Your task to perform on an android device: open app "Skype" (install if not already installed) and go to login screen Image 0: 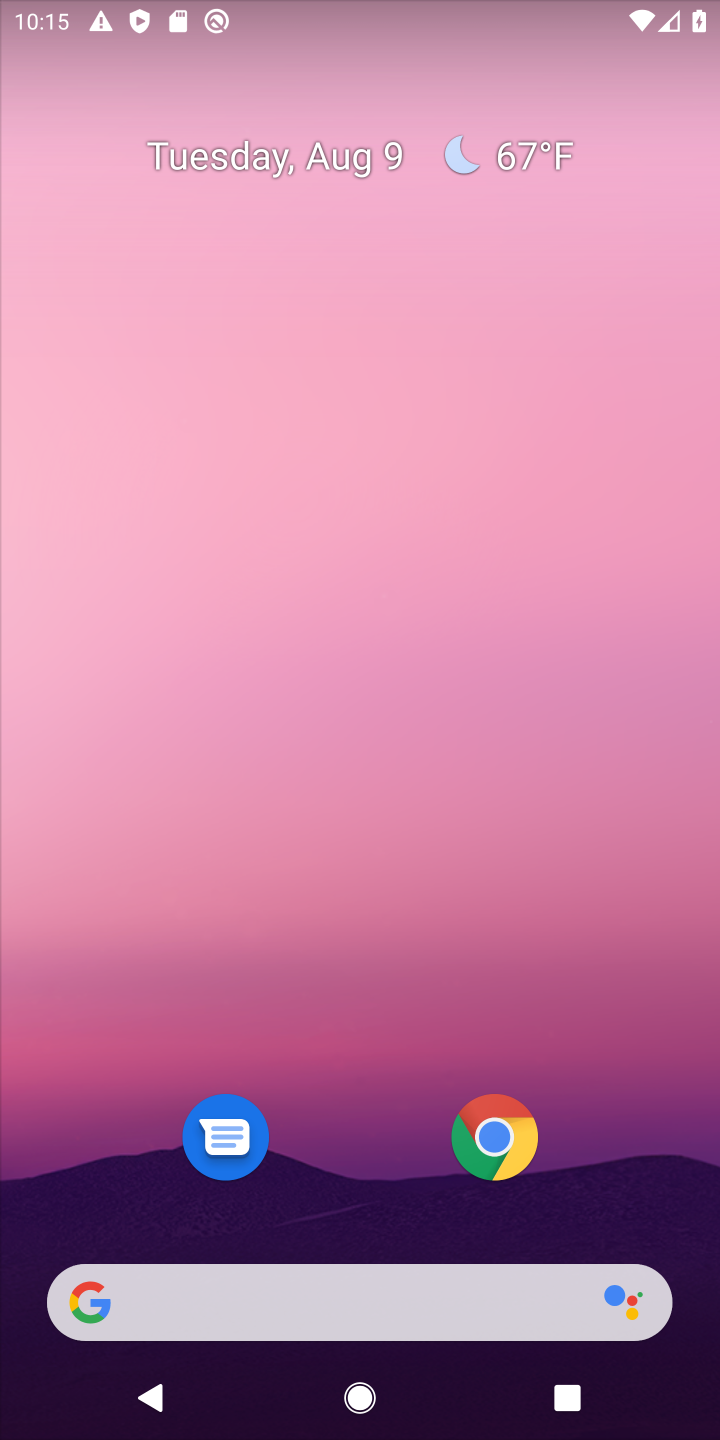
Step 0: drag from (495, 731) to (303, 37)
Your task to perform on an android device: open app "Skype" (install if not already installed) and go to login screen Image 1: 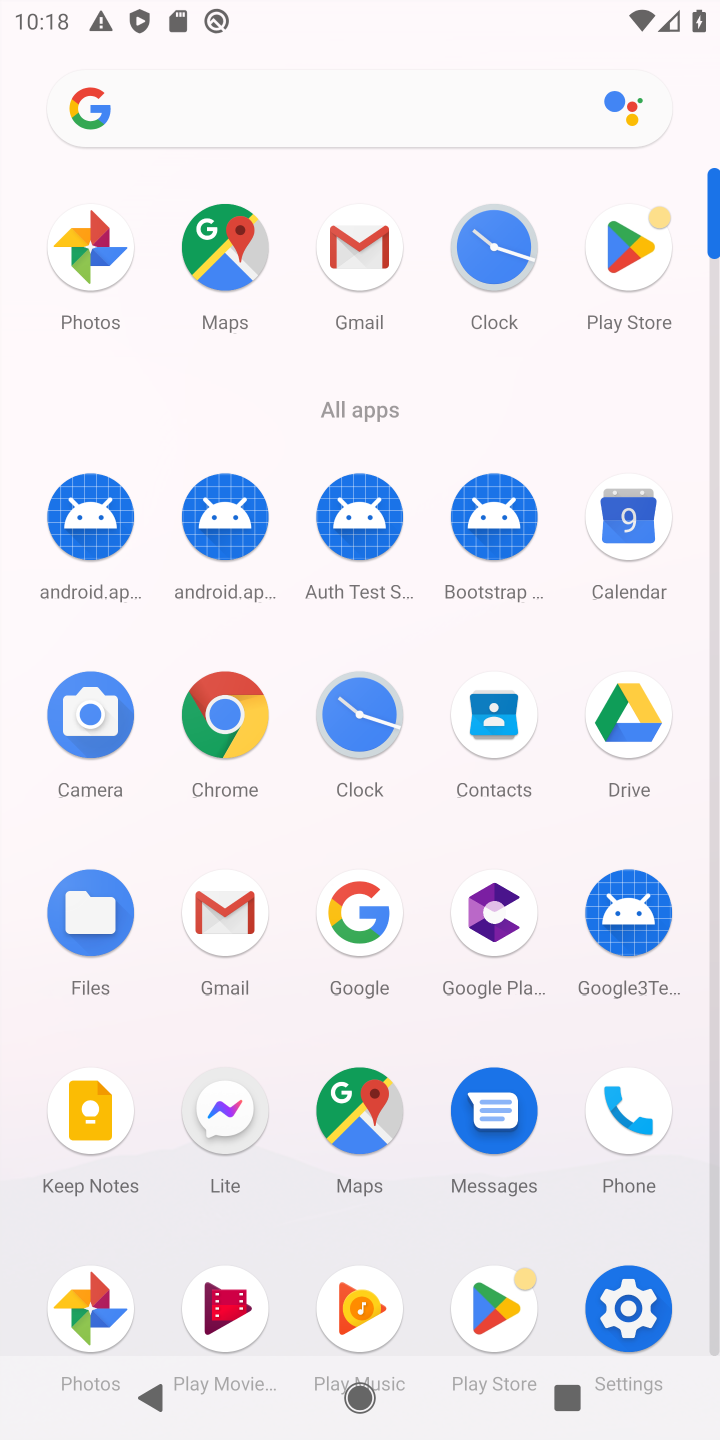
Step 1: click (614, 260)
Your task to perform on an android device: open app "Skype" (install if not already installed) and go to login screen Image 2: 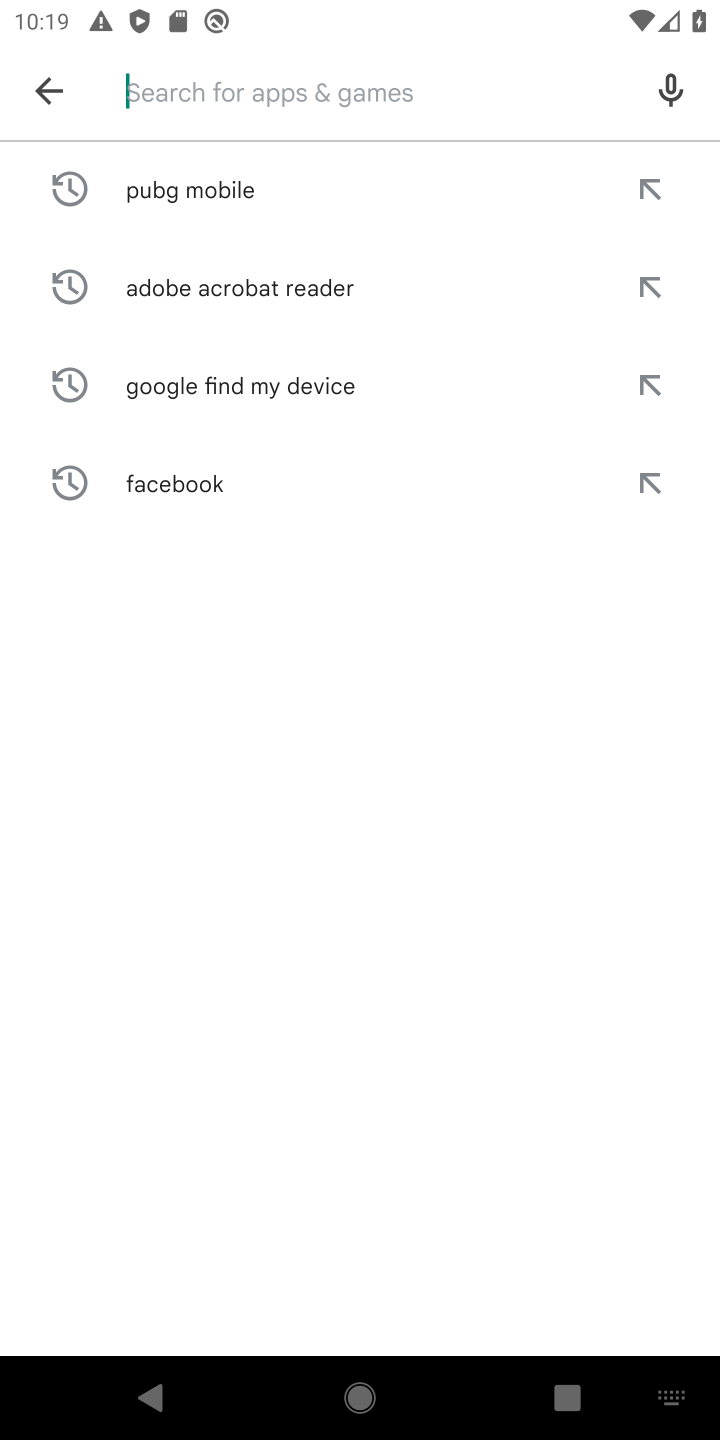
Step 2: type "Skype"
Your task to perform on an android device: open app "Skype" (install if not already installed) and go to login screen Image 3: 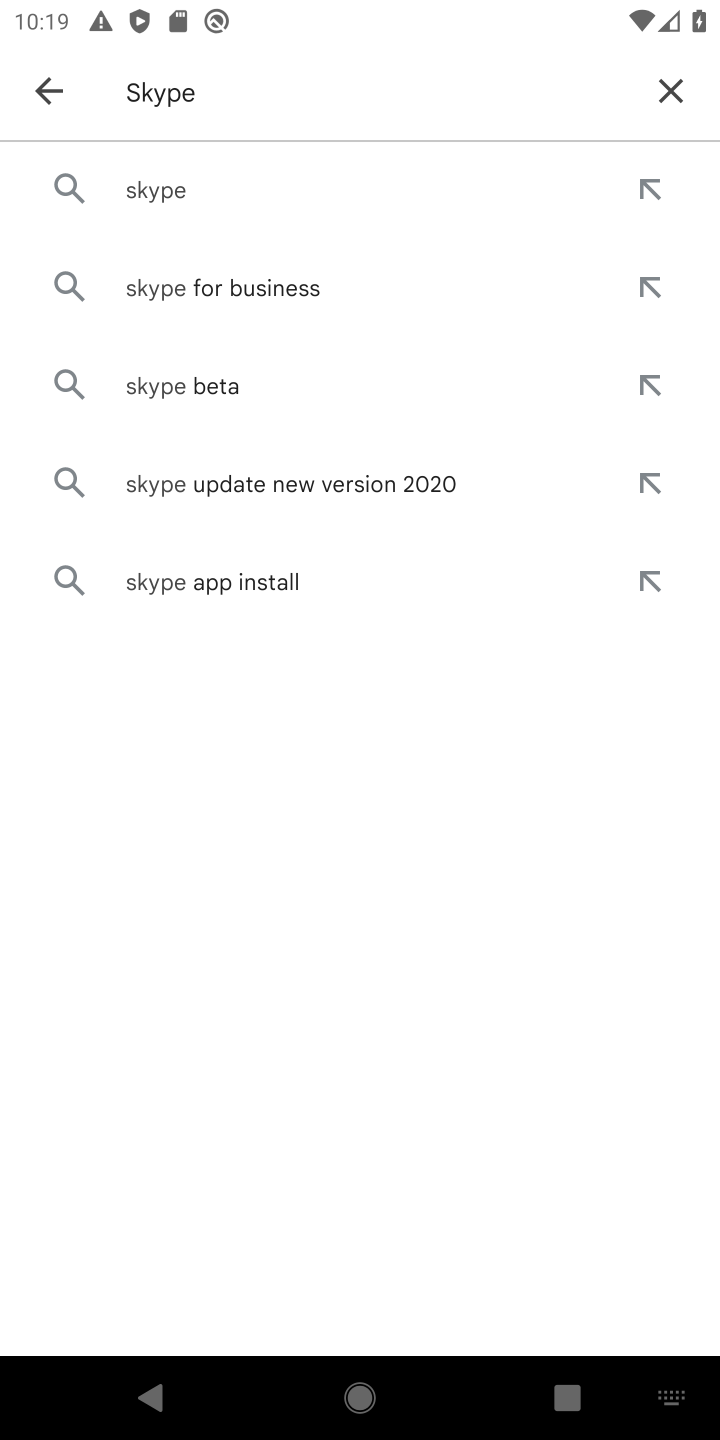
Step 3: click (174, 192)
Your task to perform on an android device: open app "Skype" (install if not already installed) and go to login screen Image 4: 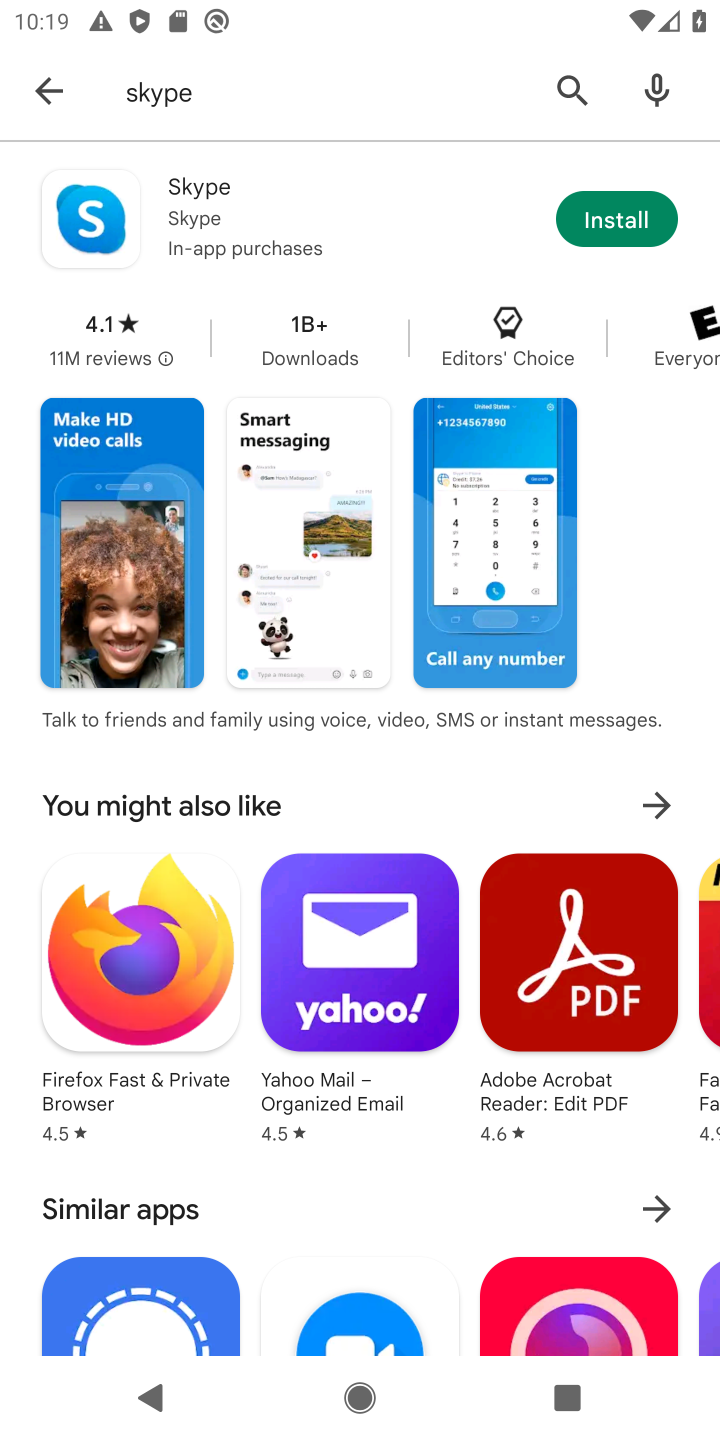
Step 4: task complete